Your task to perform on an android device: choose inbox layout in the gmail app Image 0: 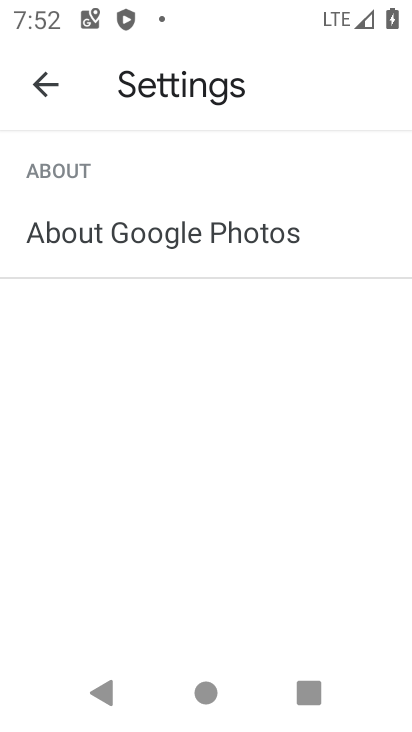
Step 0: click (64, 88)
Your task to perform on an android device: choose inbox layout in the gmail app Image 1: 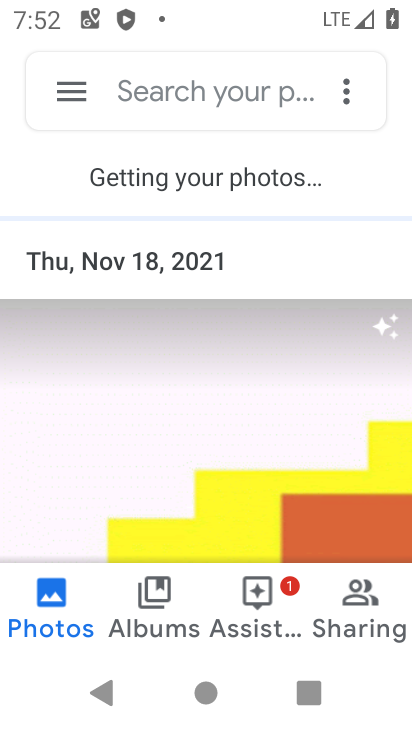
Step 1: click (64, 88)
Your task to perform on an android device: choose inbox layout in the gmail app Image 2: 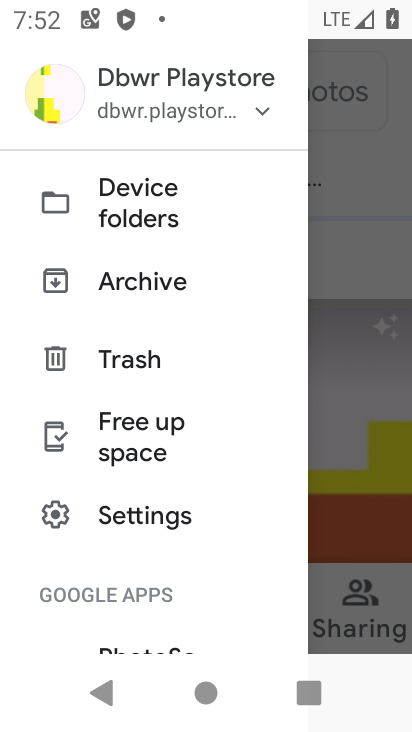
Step 2: click (367, 248)
Your task to perform on an android device: choose inbox layout in the gmail app Image 3: 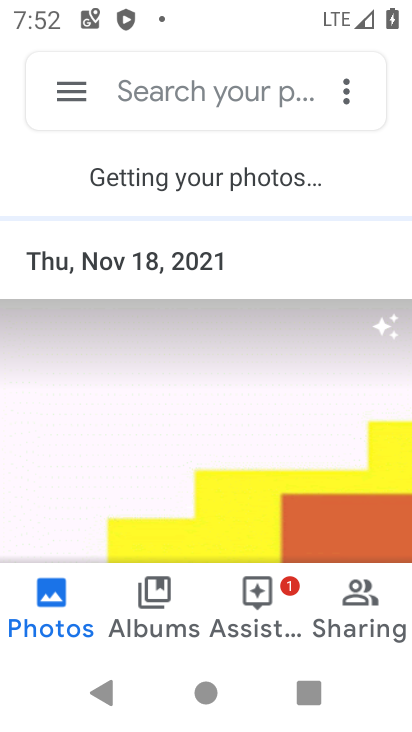
Step 3: press home button
Your task to perform on an android device: choose inbox layout in the gmail app Image 4: 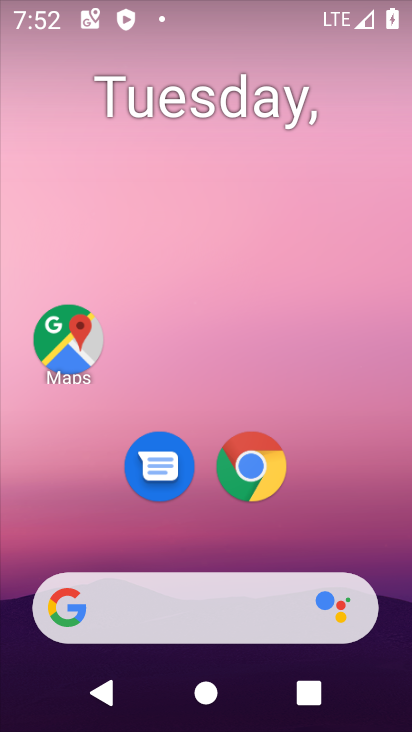
Step 4: drag from (364, 469) to (351, 148)
Your task to perform on an android device: choose inbox layout in the gmail app Image 5: 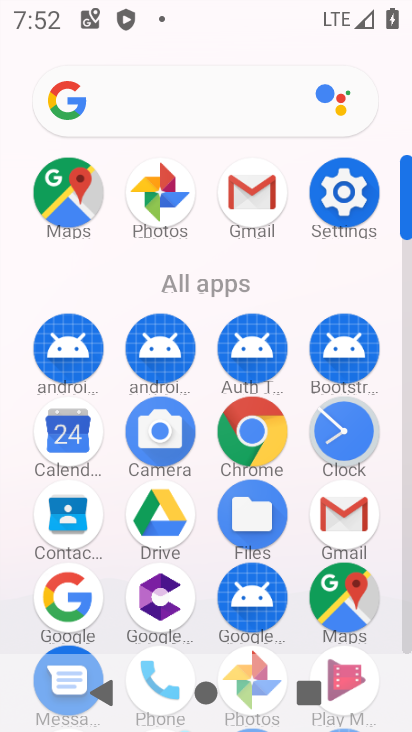
Step 5: click (323, 535)
Your task to perform on an android device: choose inbox layout in the gmail app Image 6: 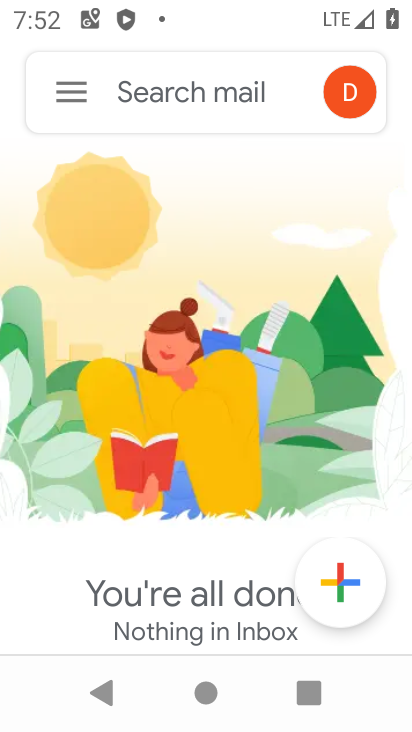
Step 6: click (84, 81)
Your task to perform on an android device: choose inbox layout in the gmail app Image 7: 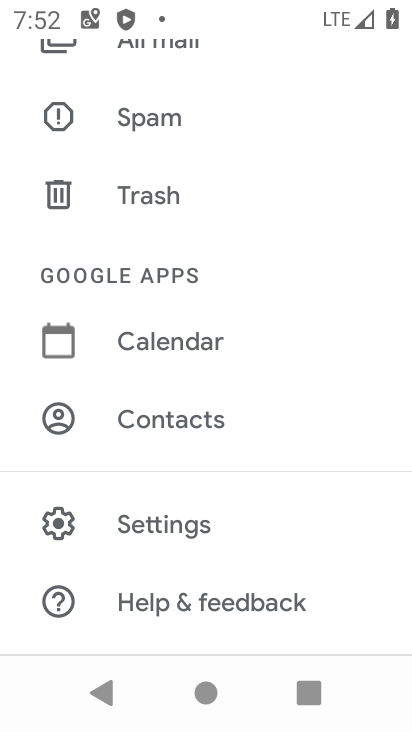
Step 7: drag from (169, 320) to (225, 694)
Your task to perform on an android device: choose inbox layout in the gmail app Image 8: 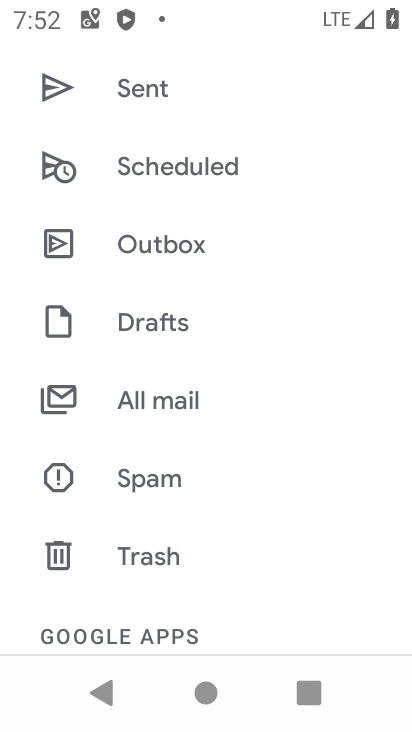
Step 8: drag from (218, 155) to (332, 609)
Your task to perform on an android device: choose inbox layout in the gmail app Image 9: 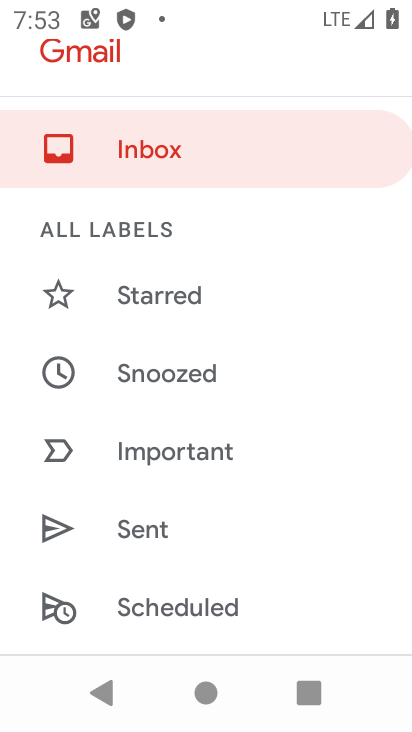
Step 9: drag from (208, 172) to (307, 570)
Your task to perform on an android device: choose inbox layout in the gmail app Image 10: 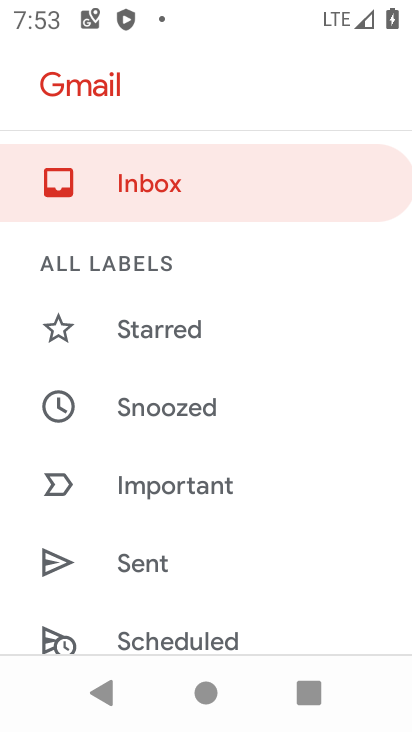
Step 10: click (133, 176)
Your task to perform on an android device: choose inbox layout in the gmail app Image 11: 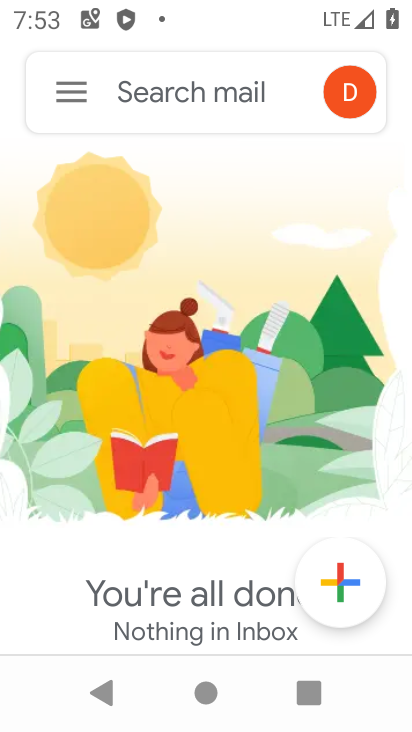
Step 11: task complete